Your task to perform on an android device: find snoozed emails in the gmail app Image 0: 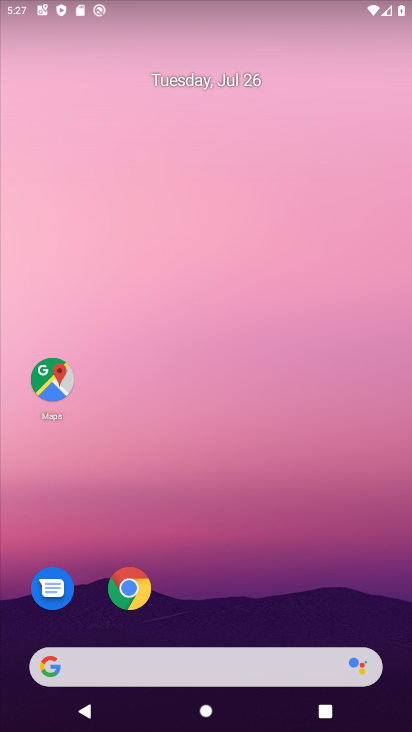
Step 0: drag from (213, 677) to (240, 160)
Your task to perform on an android device: find snoozed emails in the gmail app Image 1: 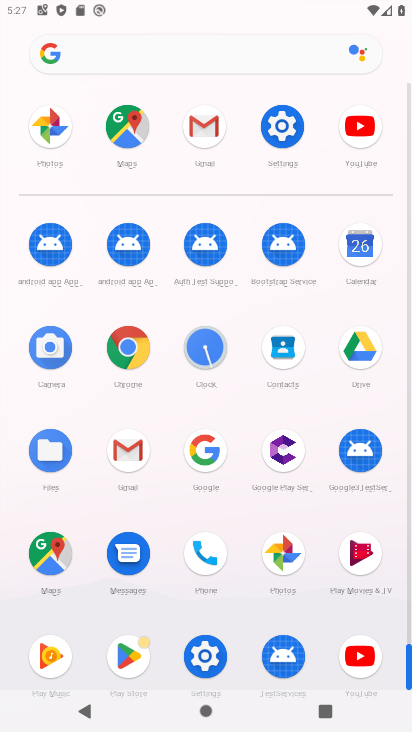
Step 1: click (146, 452)
Your task to perform on an android device: find snoozed emails in the gmail app Image 2: 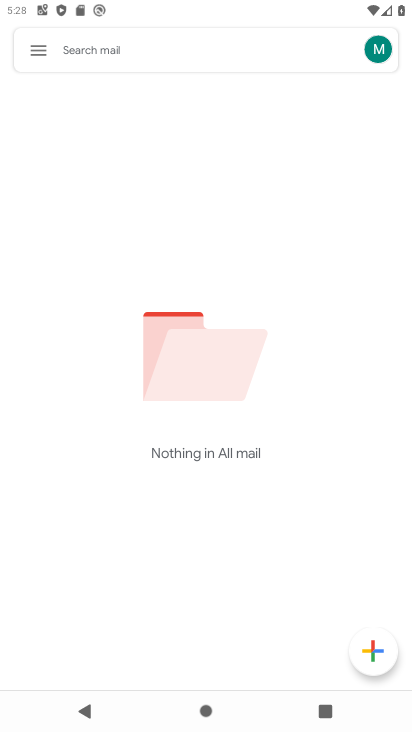
Step 2: click (35, 56)
Your task to perform on an android device: find snoozed emails in the gmail app Image 3: 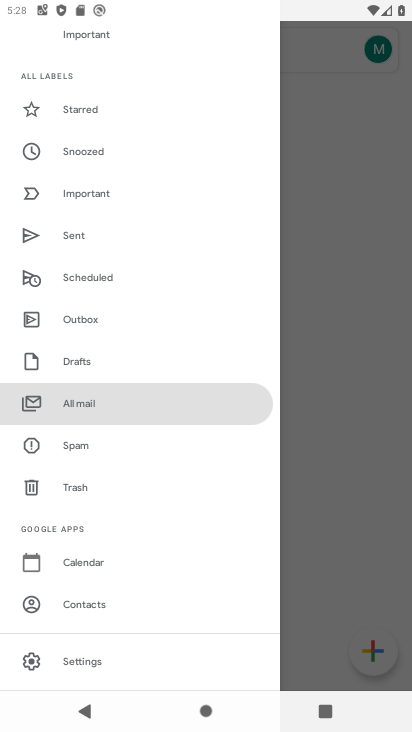
Step 3: drag from (184, 229) to (80, 678)
Your task to perform on an android device: find snoozed emails in the gmail app Image 4: 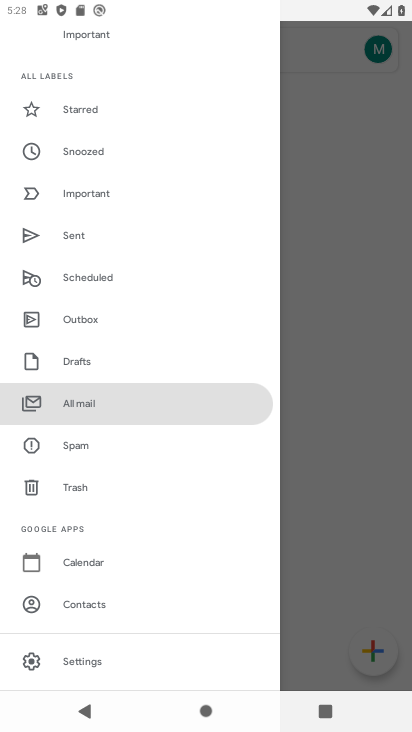
Step 4: click (85, 153)
Your task to perform on an android device: find snoozed emails in the gmail app Image 5: 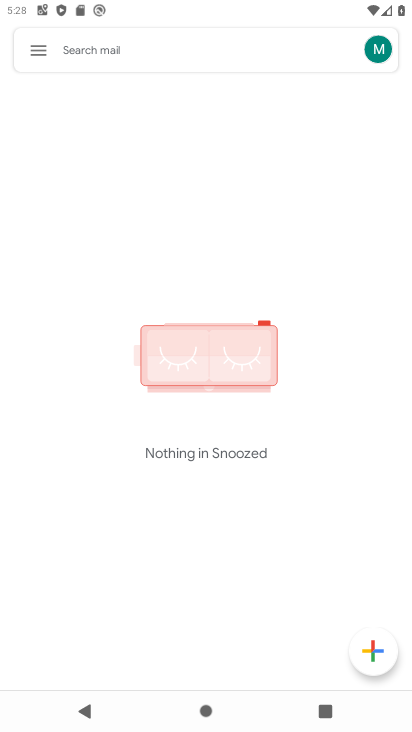
Step 5: task complete